Your task to perform on an android device: Open the map Image 0: 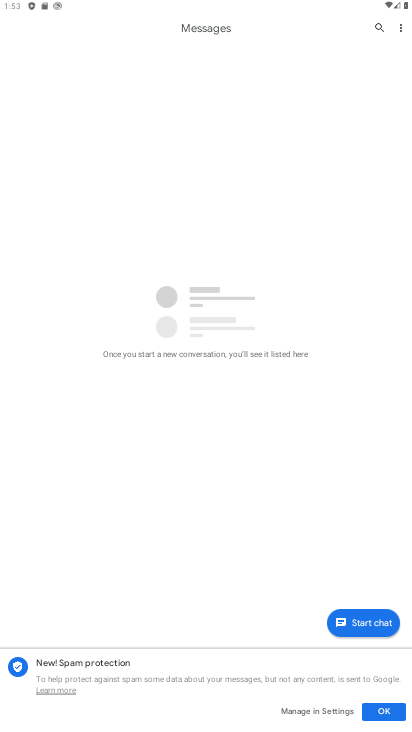
Step 0: press home button
Your task to perform on an android device: Open the map Image 1: 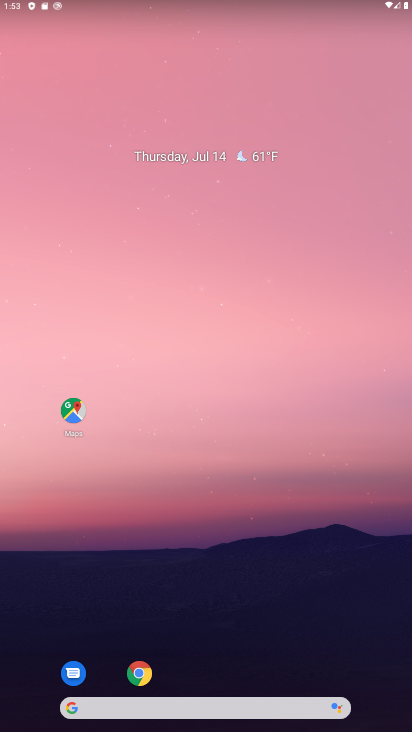
Step 1: click (60, 409)
Your task to perform on an android device: Open the map Image 2: 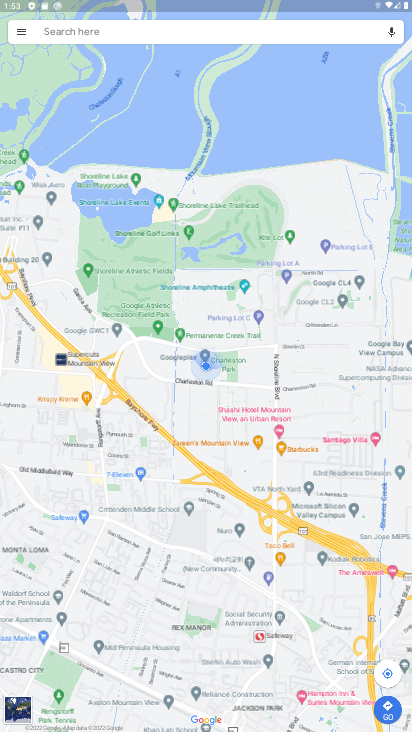
Step 2: task complete